Your task to perform on an android device: open a bookmark in the chrome app Image 0: 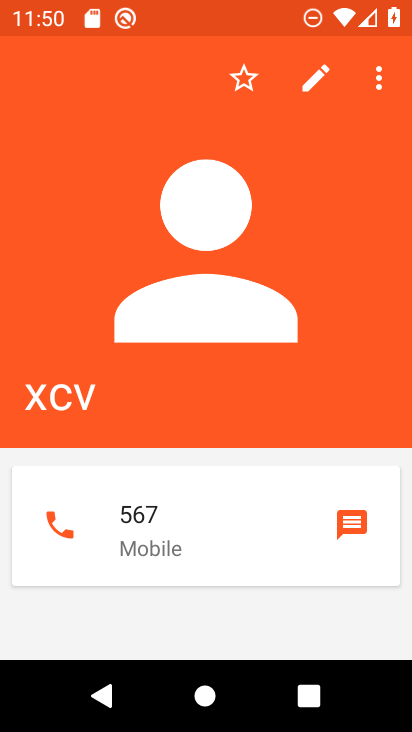
Step 0: press home button
Your task to perform on an android device: open a bookmark in the chrome app Image 1: 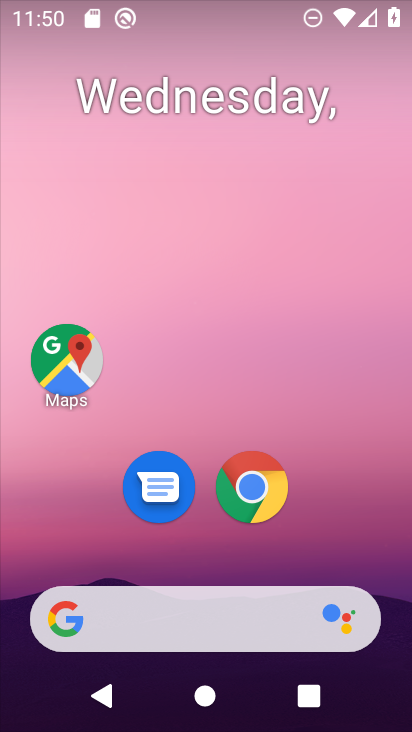
Step 1: click (249, 488)
Your task to perform on an android device: open a bookmark in the chrome app Image 2: 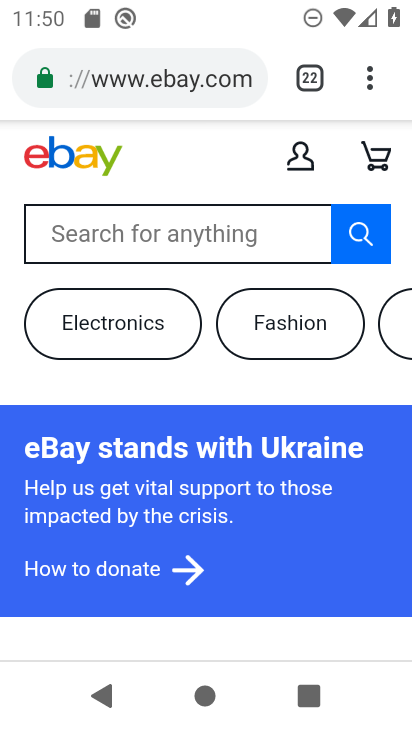
Step 2: click (367, 75)
Your task to perform on an android device: open a bookmark in the chrome app Image 3: 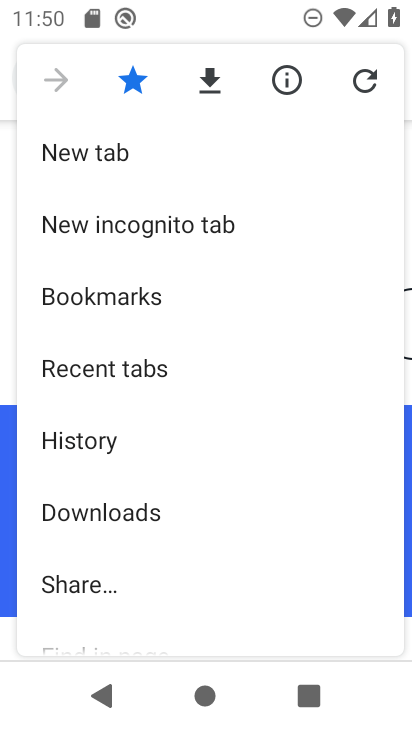
Step 3: click (124, 283)
Your task to perform on an android device: open a bookmark in the chrome app Image 4: 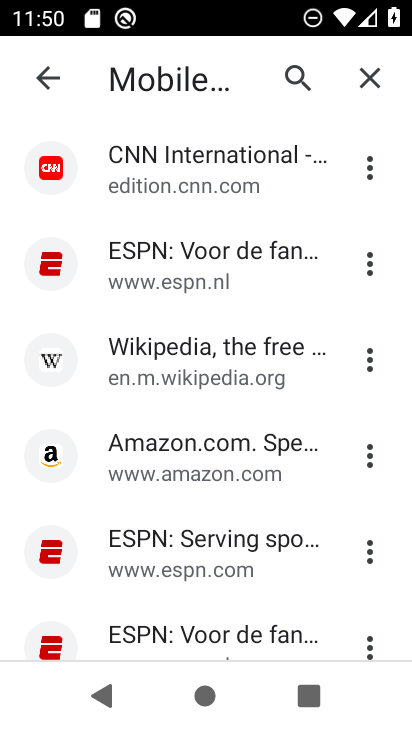
Step 4: task complete